Your task to perform on an android device: Go to calendar. Show me events next week Image 0: 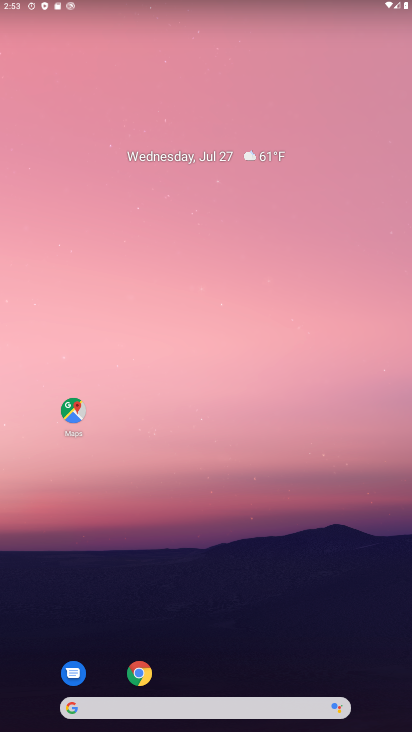
Step 0: drag from (61, 547) to (170, 139)
Your task to perform on an android device: Go to calendar. Show me events next week Image 1: 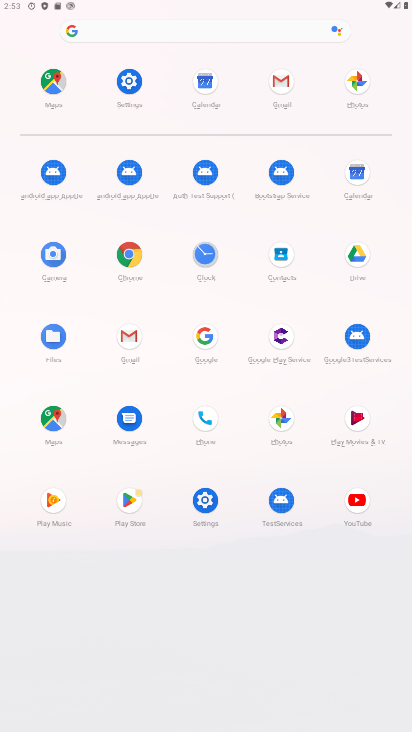
Step 1: click (359, 183)
Your task to perform on an android device: Go to calendar. Show me events next week Image 2: 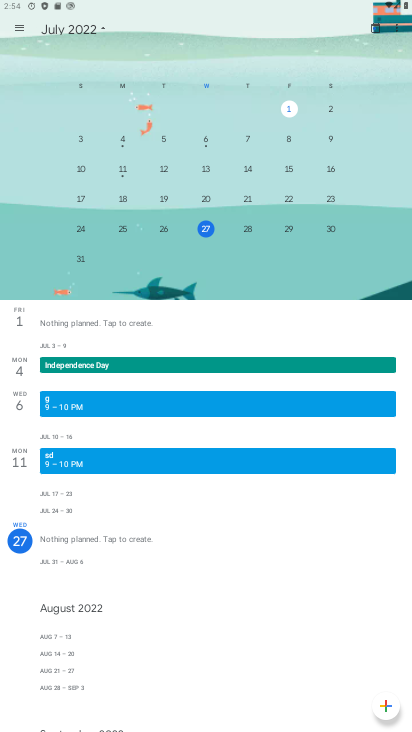
Step 2: task complete